Your task to perform on an android device: Search for Mexican restaurants on Maps Image 0: 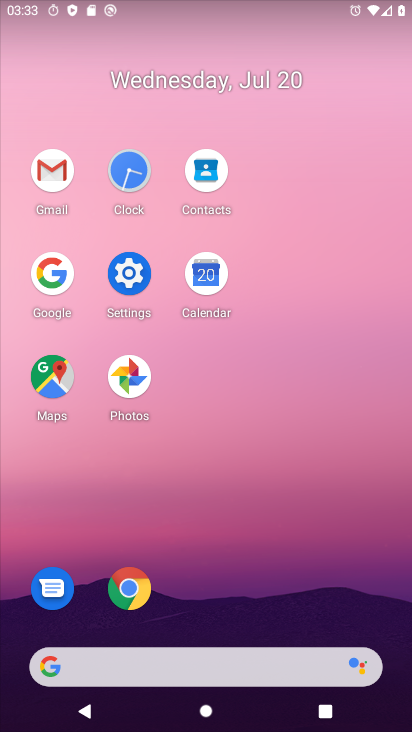
Step 0: click (66, 368)
Your task to perform on an android device: Search for Mexican restaurants on Maps Image 1: 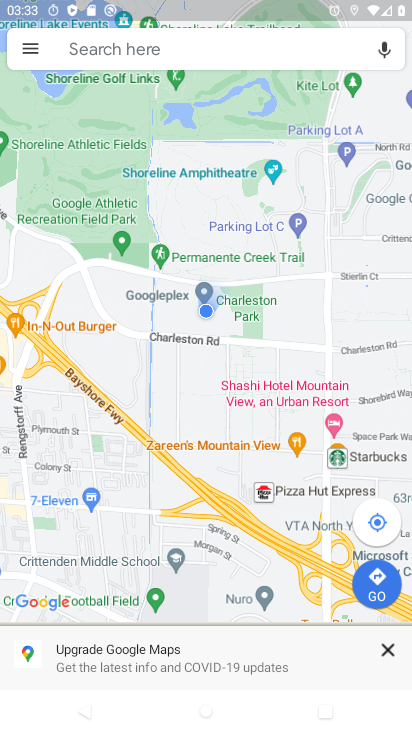
Step 1: click (143, 49)
Your task to perform on an android device: Search for Mexican restaurants on Maps Image 2: 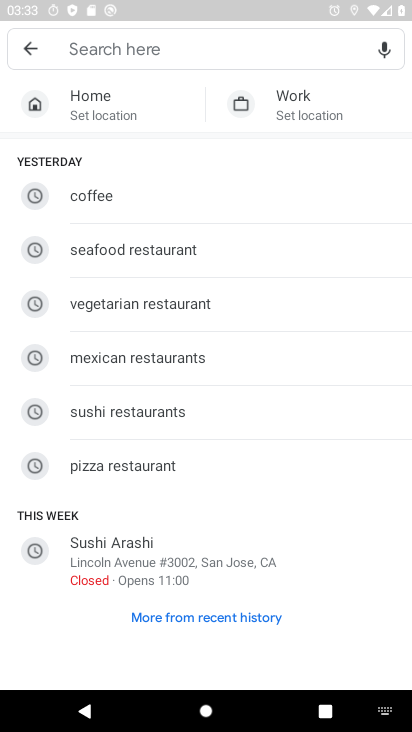
Step 2: click (118, 357)
Your task to perform on an android device: Search for Mexican restaurants on Maps Image 3: 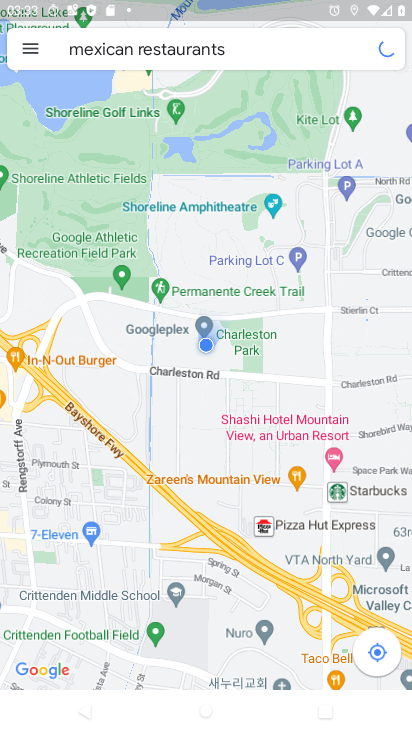
Step 3: task complete